Your task to perform on an android device: Go to Yahoo.com Image 0: 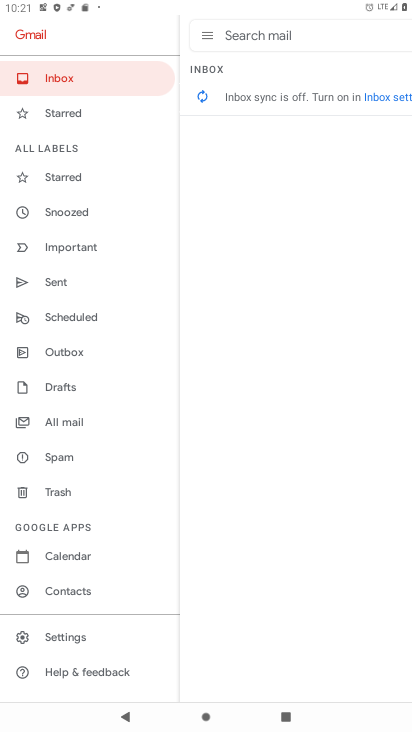
Step 0: press home button
Your task to perform on an android device: Go to Yahoo.com Image 1: 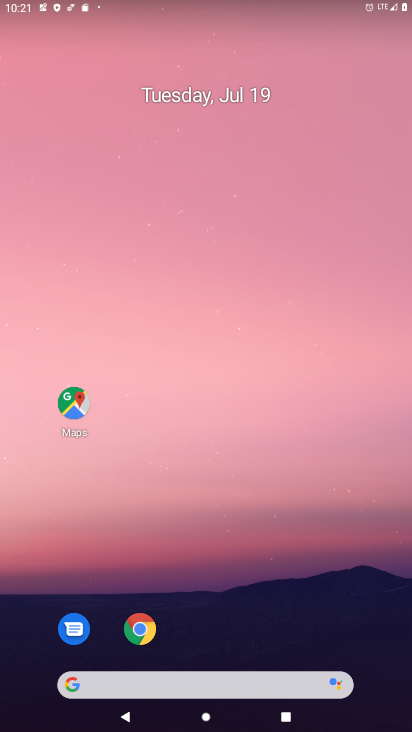
Step 1: click (145, 637)
Your task to perform on an android device: Go to Yahoo.com Image 2: 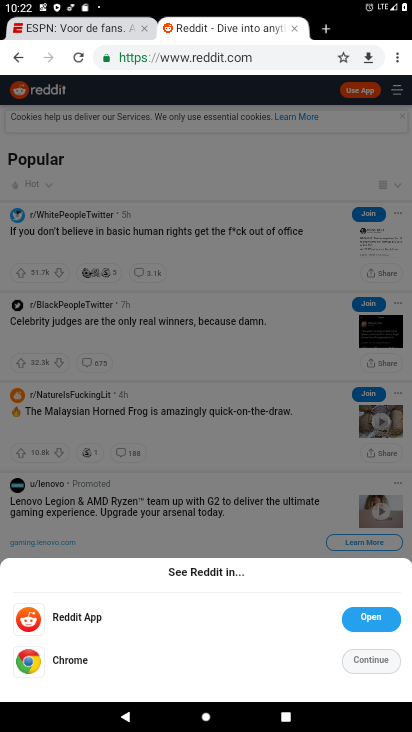
Step 2: click (11, 50)
Your task to perform on an android device: Go to Yahoo.com Image 3: 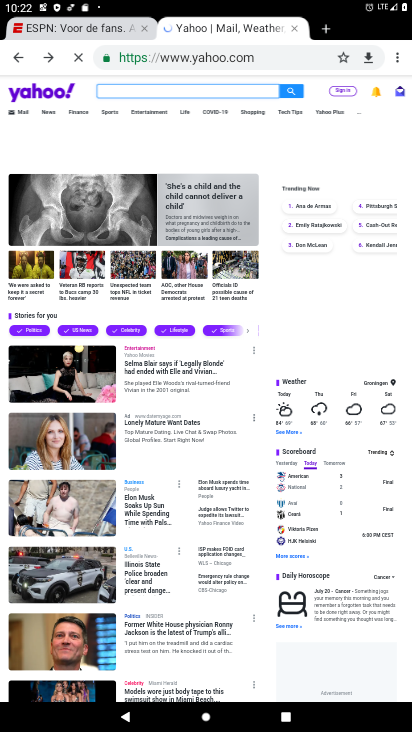
Step 3: task complete